Your task to perform on an android device: Open internet settings Image 0: 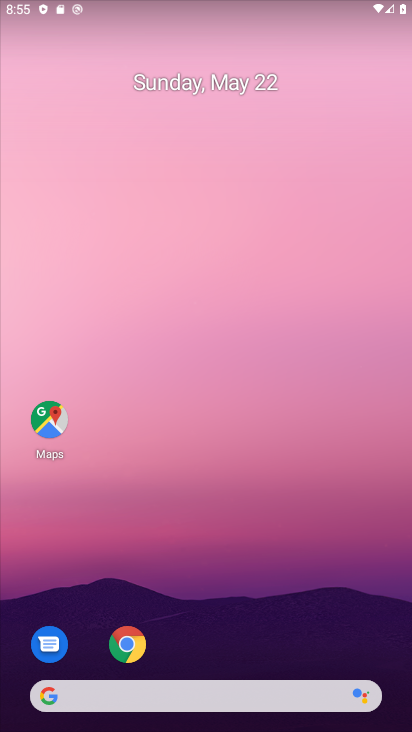
Step 0: drag from (283, 687) to (264, 91)
Your task to perform on an android device: Open internet settings Image 1: 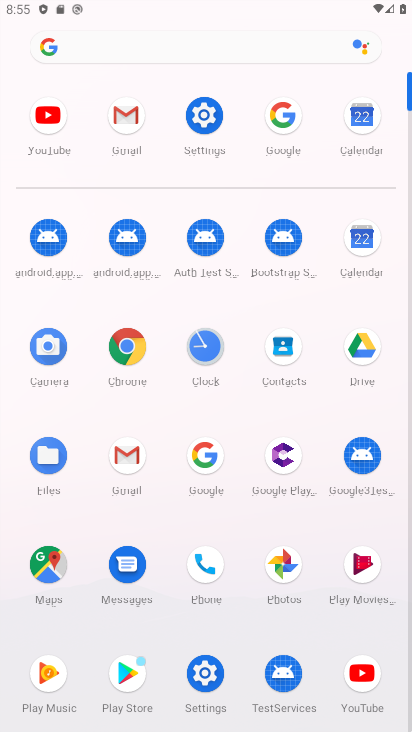
Step 1: click (197, 130)
Your task to perform on an android device: Open internet settings Image 2: 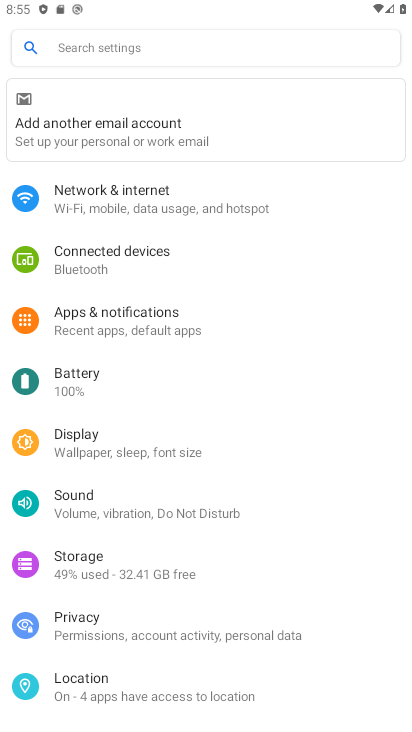
Step 2: click (120, 192)
Your task to perform on an android device: Open internet settings Image 3: 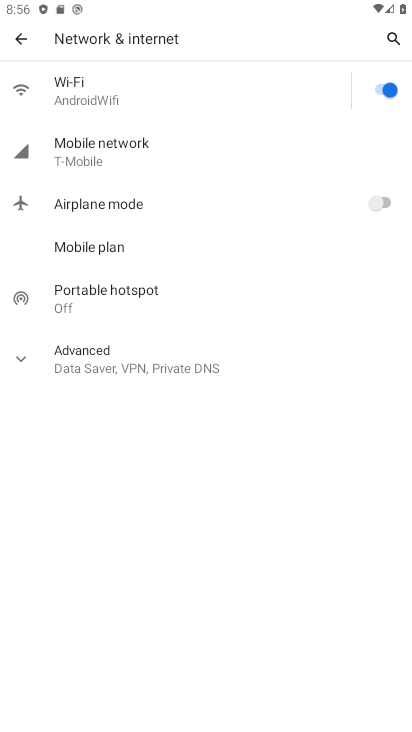
Step 3: task complete